Your task to perform on an android device: Set the phone to "Do not disturb". Image 0: 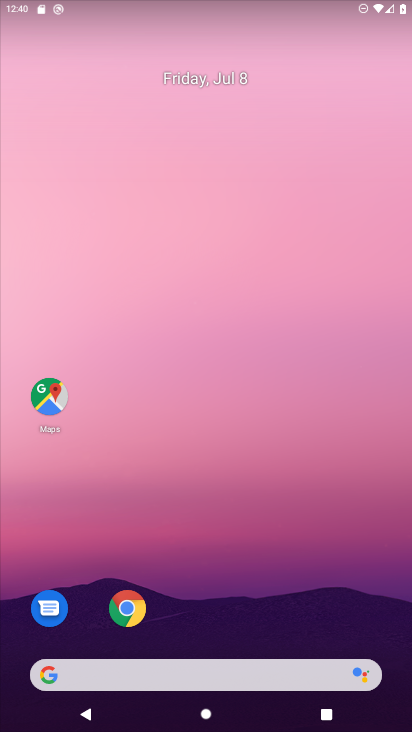
Step 0: drag from (265, 712) to (259, 138)
Your task to perform on an android device: Set the phone to "Do not disturb". Image 1: 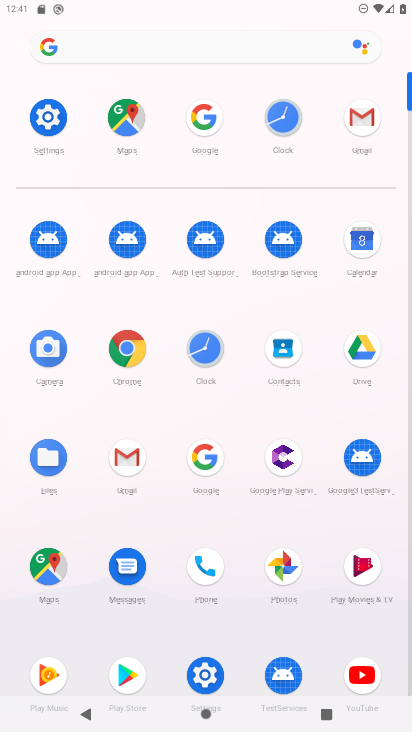
Step 1: click (48, 118)
Your task to perform on an android device: Set the phone to "Do not disturb". Image 2: 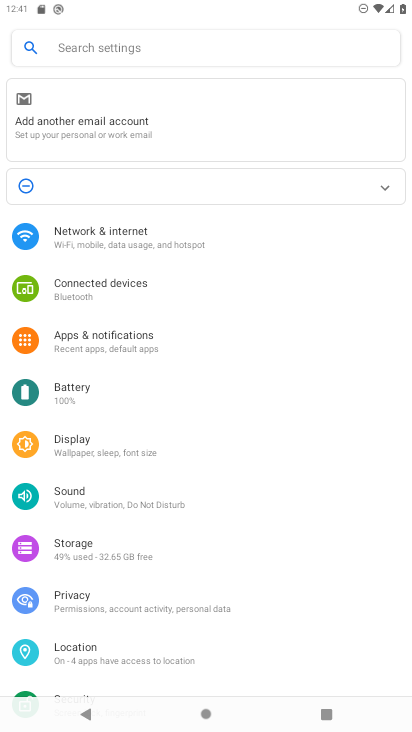
Step 2: click (124, 504)
Your task to perform on an android device: Set the phone to "Do not disturb". Image 3: 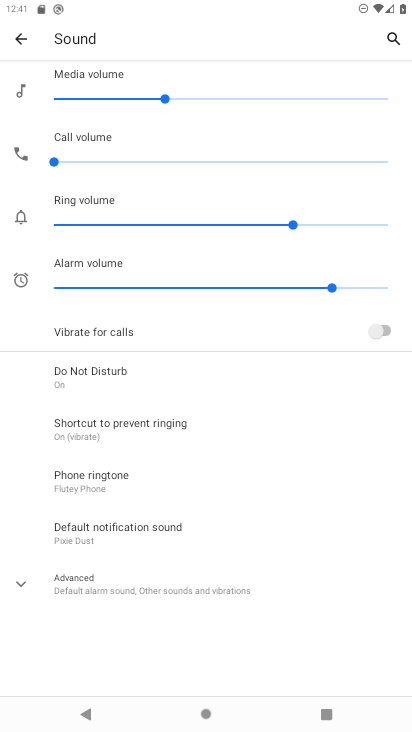
Step 3: click (84, 374)
Your task to perform on an android device: Set the phone to "Do not disturb". Image 4: 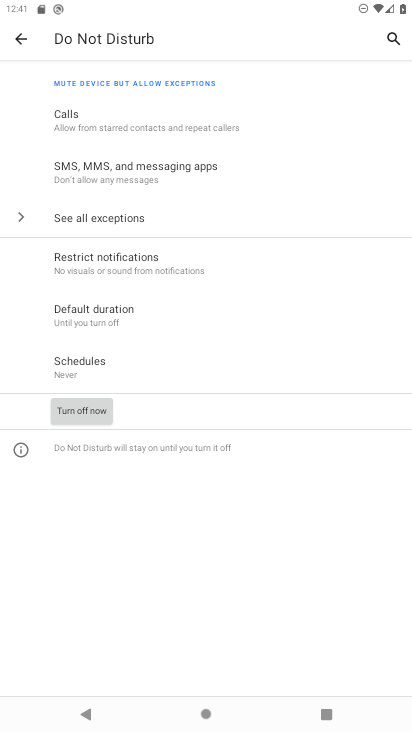
Step 4: task complete